Your task to perform on an android device: show emergency info Image 0: 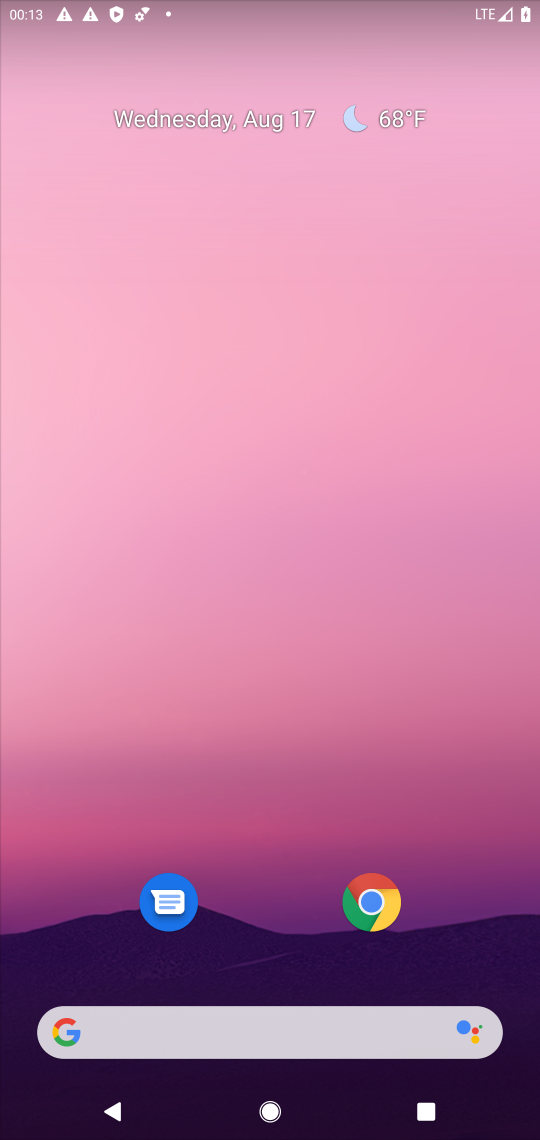
Step 0: drag from (278, 688) to (278, 69)
Your task to perform on an android device: show emergency info Image 1: 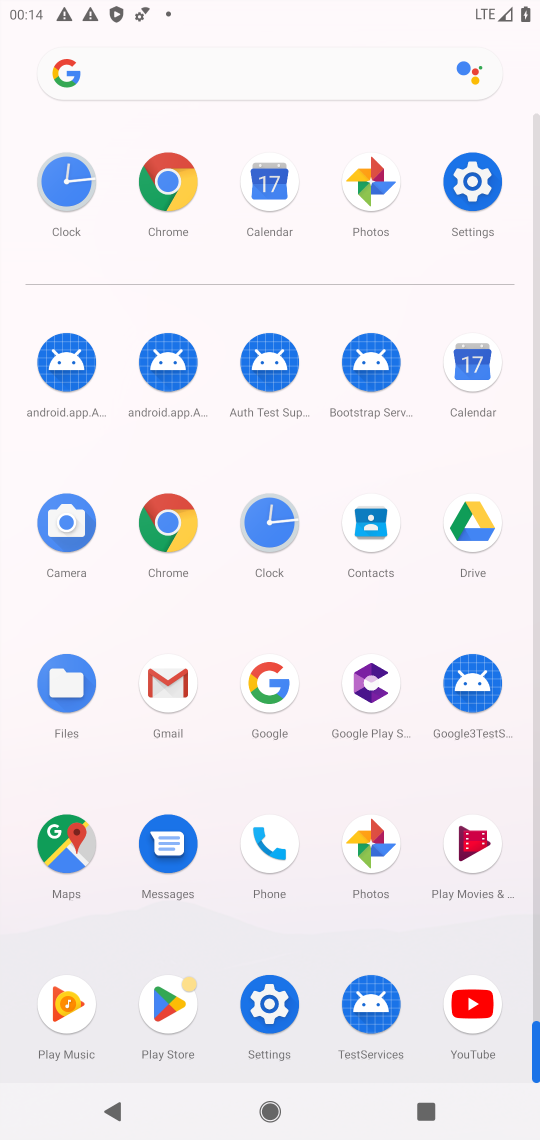
Step 1: click (274, 1018)
Your task to perform on an android device: show emergency info Image 2: 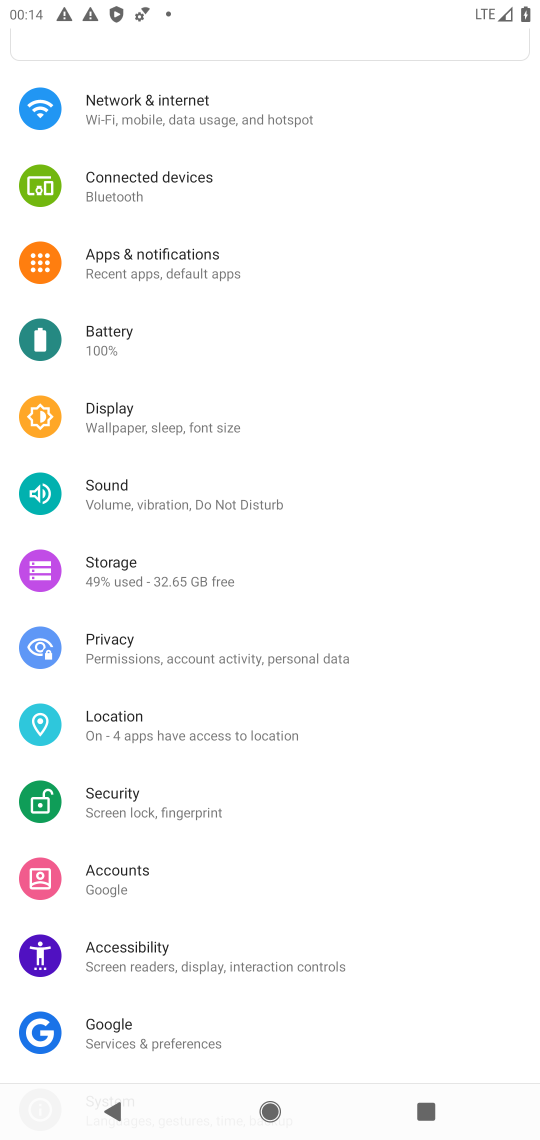
Step 2: drag from (169, 974) to (212, 111)
Your task to perform on an android device: show emergency info Image 3: 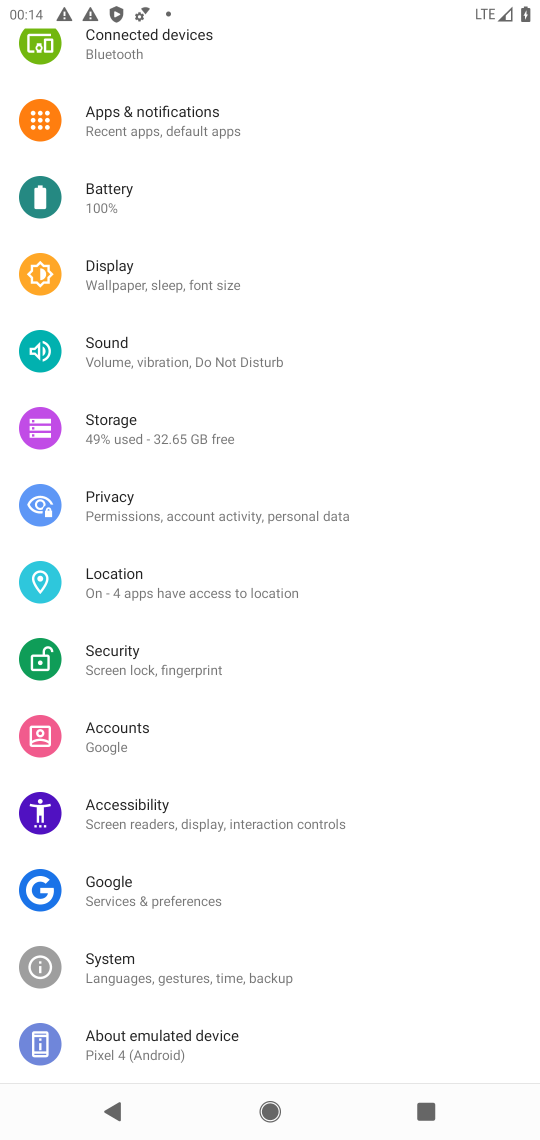
Step 3: drag from (127, 964) to (226, 276)
Your task to perform on an android device: show emergency info Image 4: 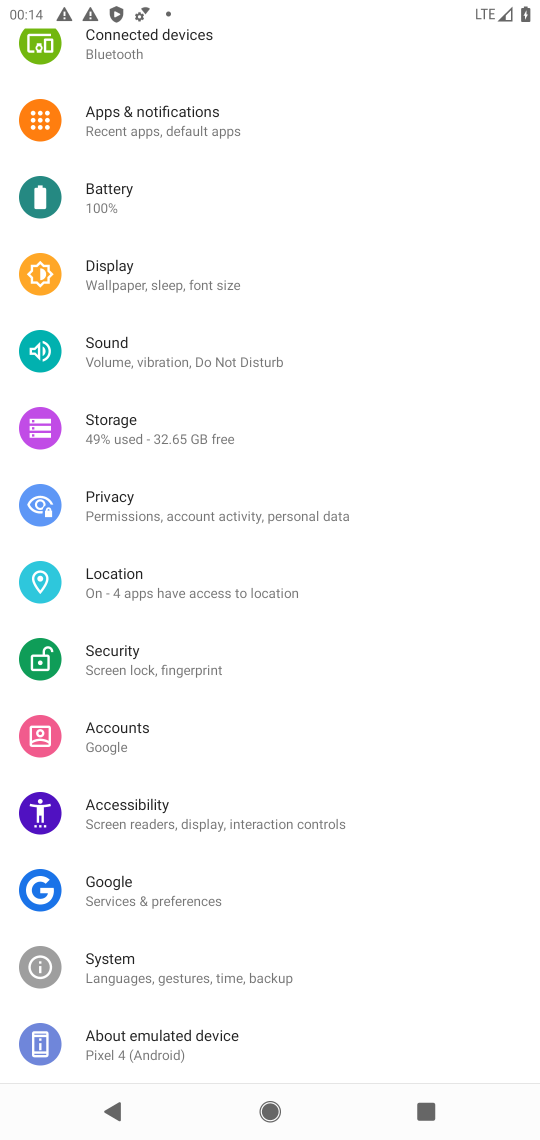
Step 4: click (197, 1038)
Your task to perform on an android device: show emergency info Image 5: 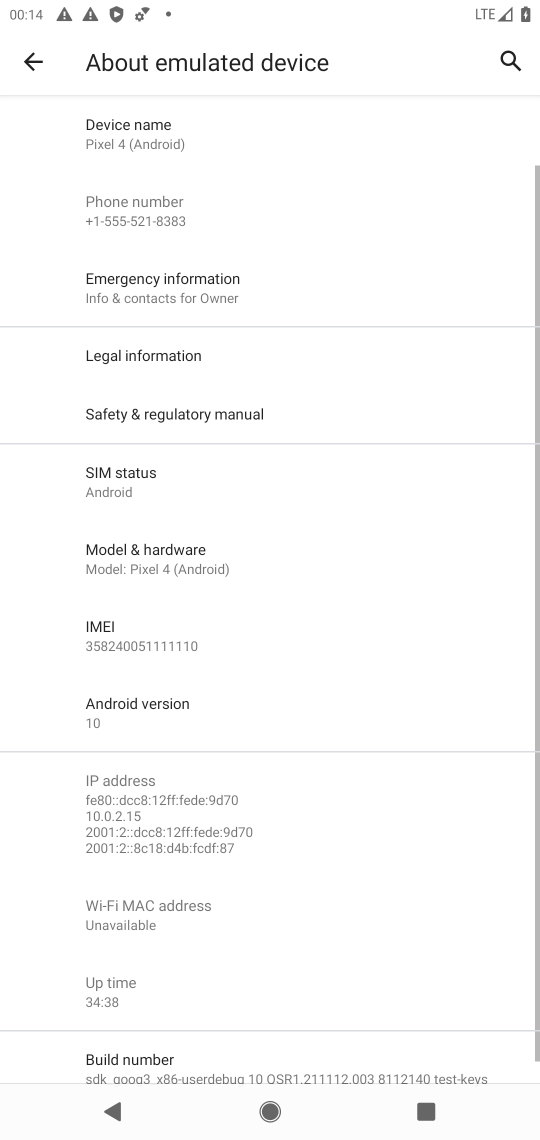
Step 5: click (225, 298)
Your task to perform on an android device: show emergency info Image 6: 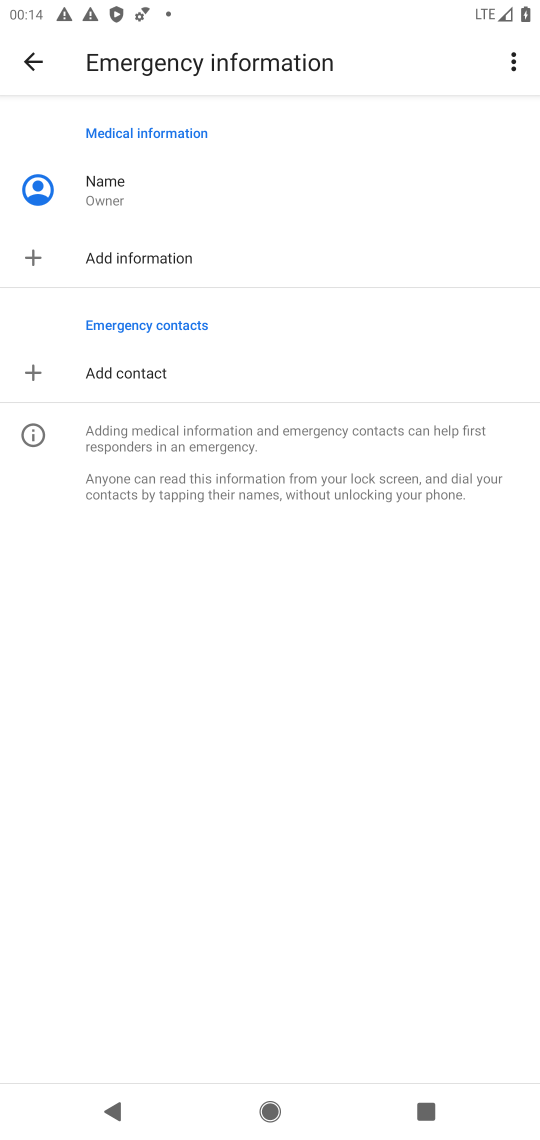
Step 6: task complete